Your task to perform on an android device: Open privacy settings Image 0: 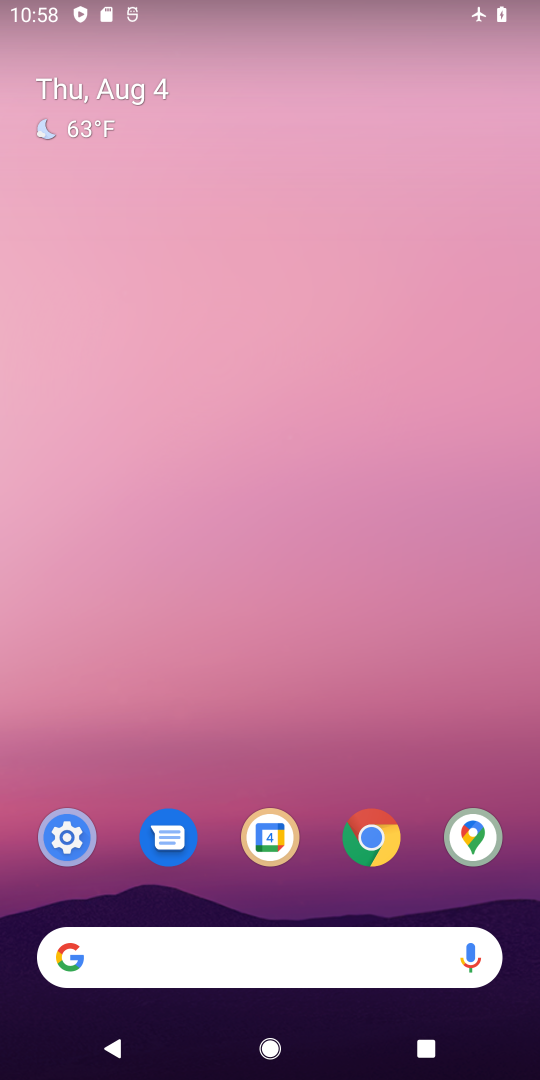
Step 0: press home button
Your task to perform on an android device: Open privacy settings Image 1: 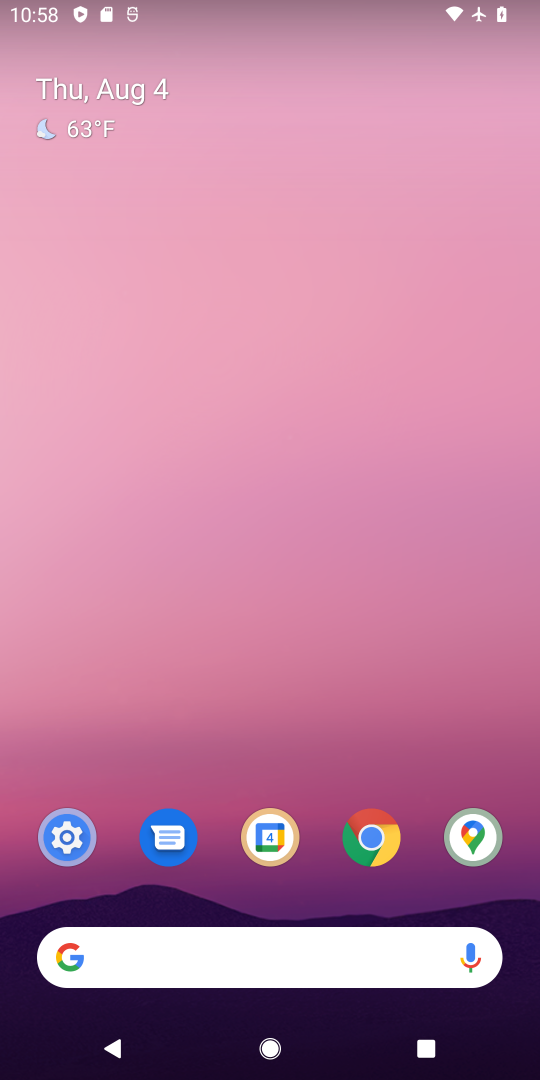
Step 1: drag from (326, 904) to (430, 13)
Your task to perform on an android device: Open privacy settings Image 2: 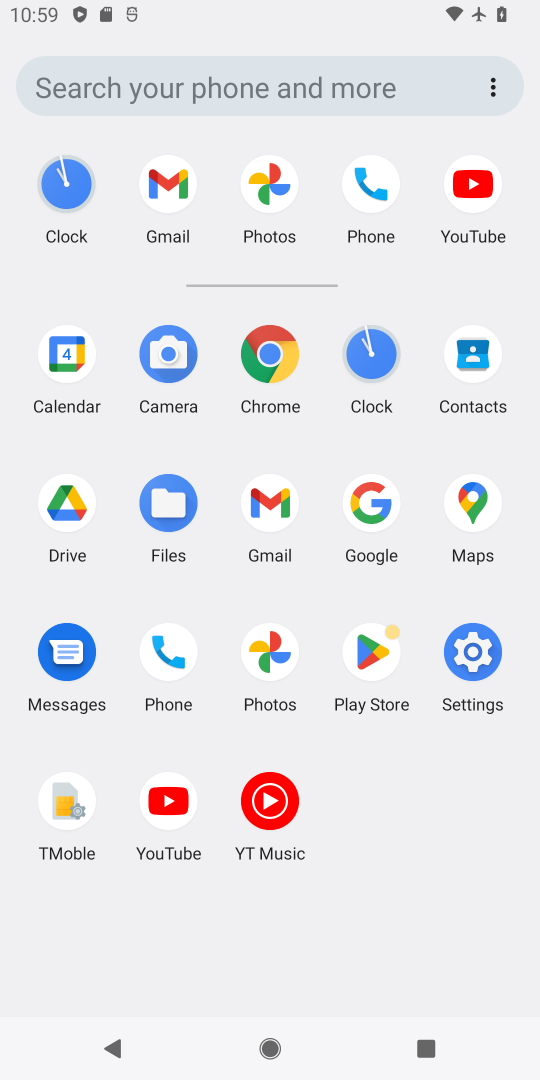
Step 2: click (479, 652)
Your task to perform on an android device: Open privacy settings Image 3: 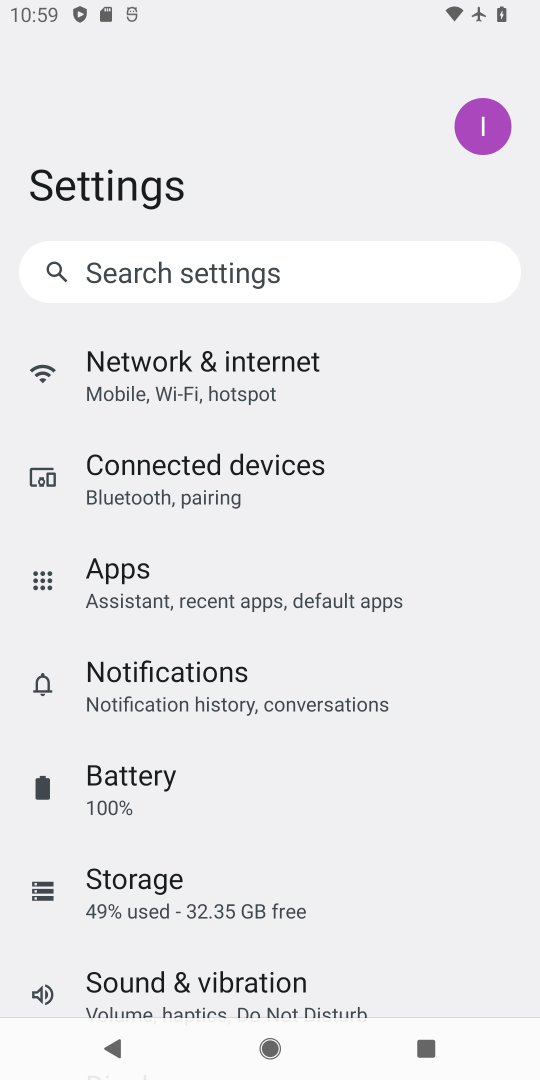
Step 3: drag from (241, 935) to (264, 152)
Your task to perform on an android device: Open privacy settings Image 4: 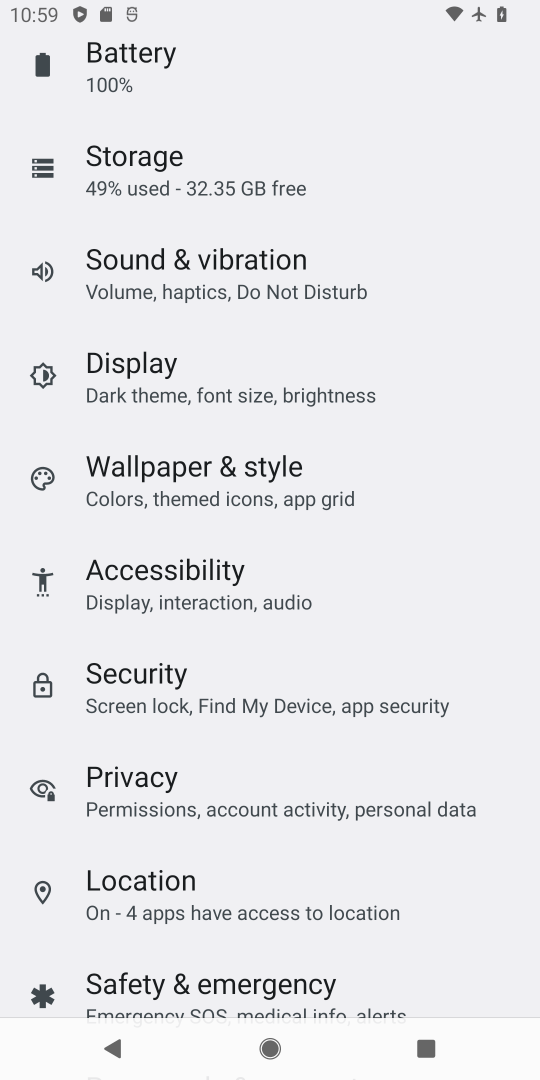
Step 4: click (191, 781)
Your task to perform on an android device: Open privacy settings Image 5: 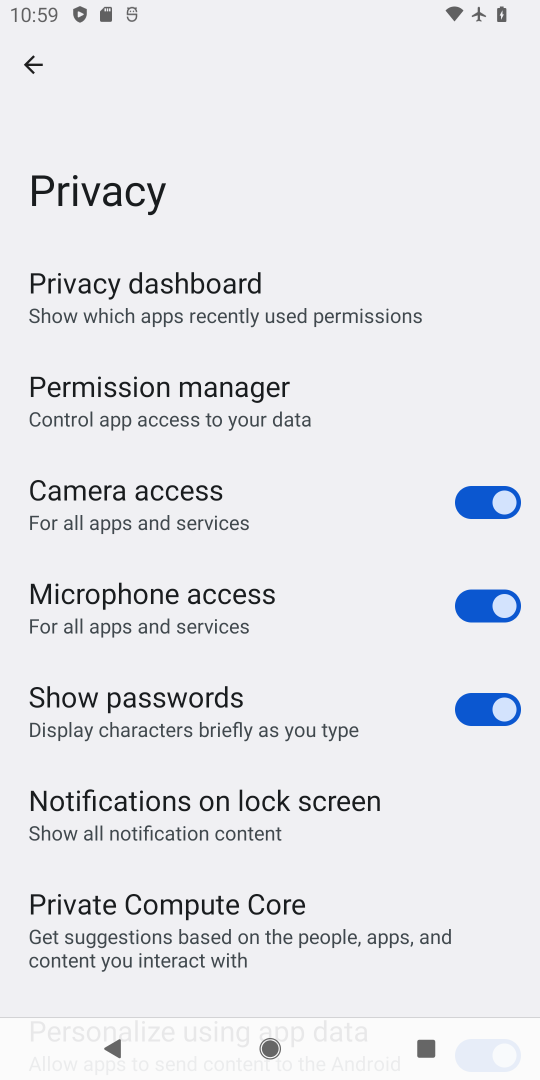
Step 5: task complete